Your task to perform on an android device: find photos in the google photos app Image 0: 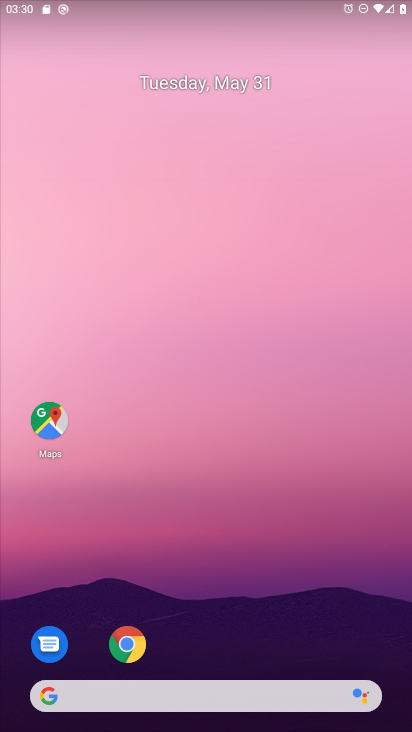
Step 0: drag from (280, 557) to (204, 86)
Your task to perform on an android device: find photos in the google photos app Image 1: 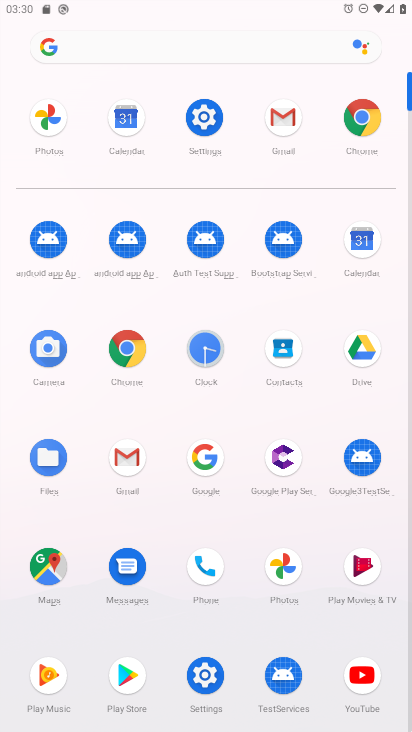
Step 1: click (53, 120)
Your task to perform on an android device: find photos in the google photos app Image 2: 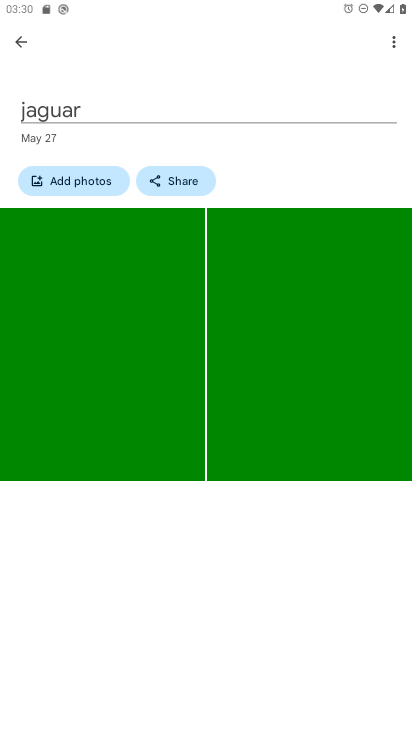
Step 2: click (21, 46)
Your task to perform on an android device: find photos in the google photos app Image 3: 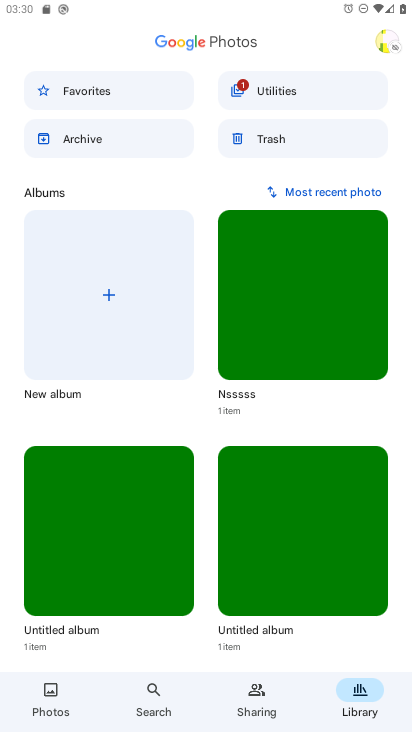
Step 3: click (53, 688)
Your task to perform on an android device: find photos in the google photos app Image 4: 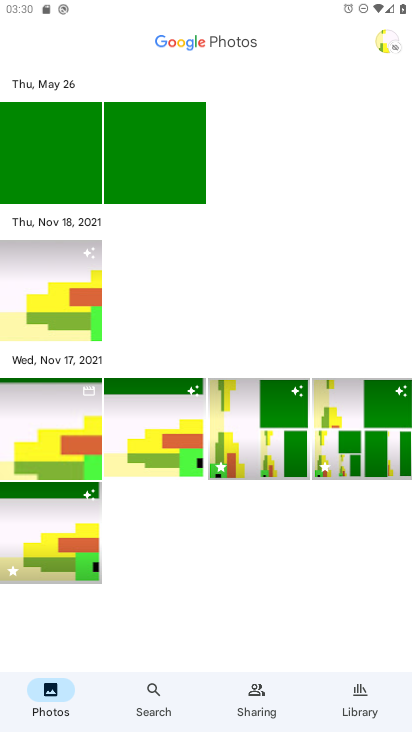
Step 4: task complete